Your task to perform on an android device: Open calendar and show me the third week of next month Image 0: 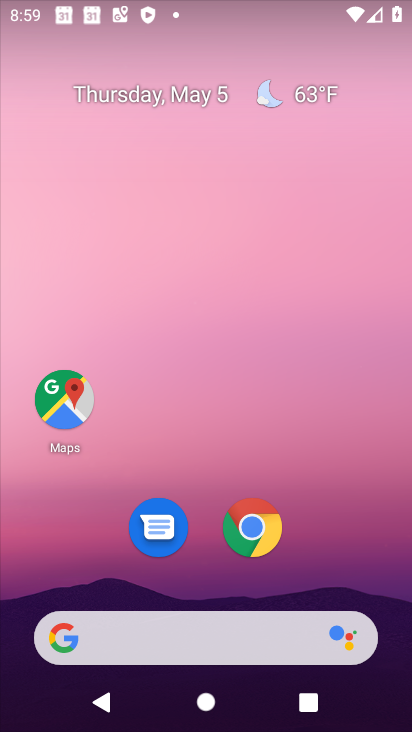
Step 0: drag from (252, 706) to (285, 85)
Your task to perform on an android device: Open calendar and show me the third week of next month Image 1: 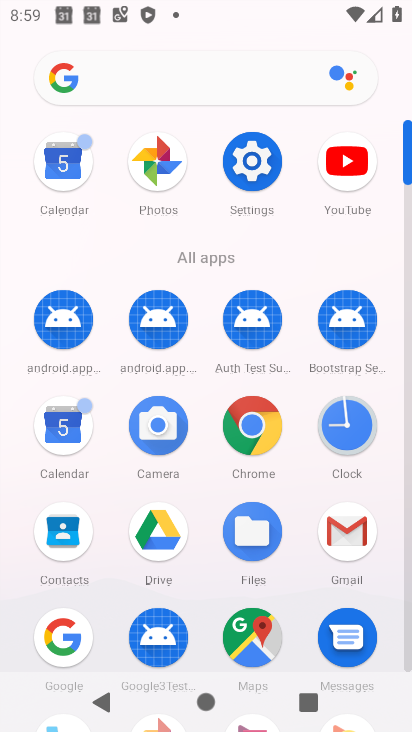
Step 1: click (60, 422)
Your task to perform on an android device: Open calendar and show me the third week of next month Image 2: 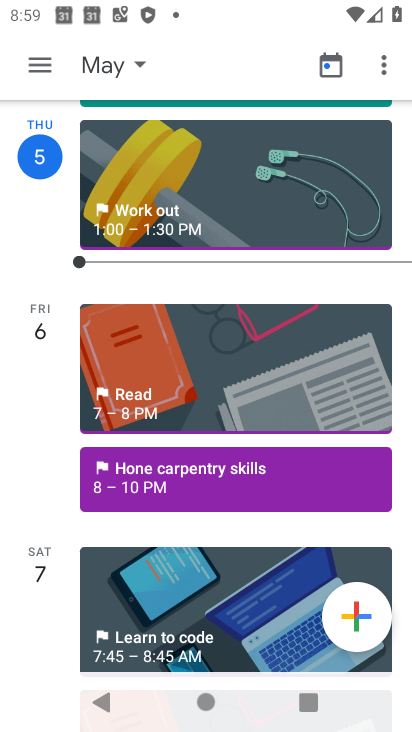
Step 2: click (102, 72)
Your task to perform on an android device: Open calendar and show me the third week of next month Image 3: 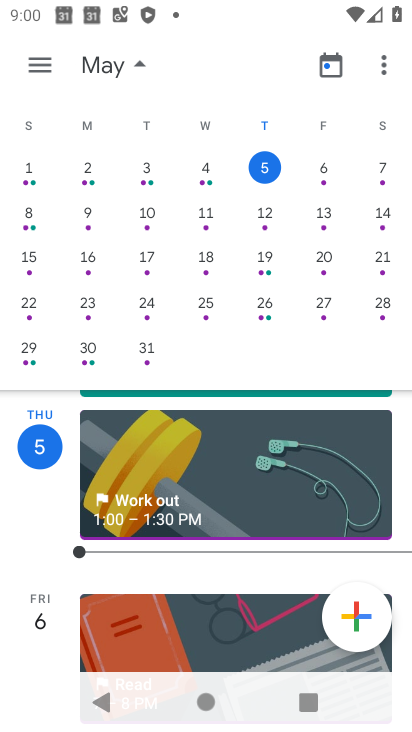
Step 3: drag from (359, 266) to (4, 376)
Your task to perform on an android device: Open calendar and show me the third week of next month Image 4: 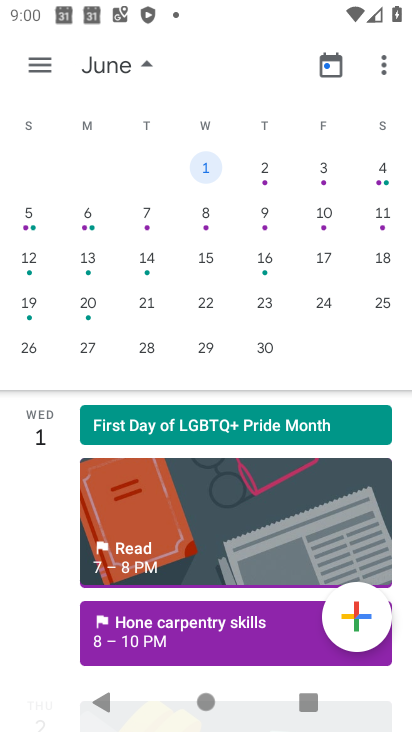
Step 4: click (31, 260)
Your task to perform on an android device: Open calendar and show me the third week of next month Image 5: 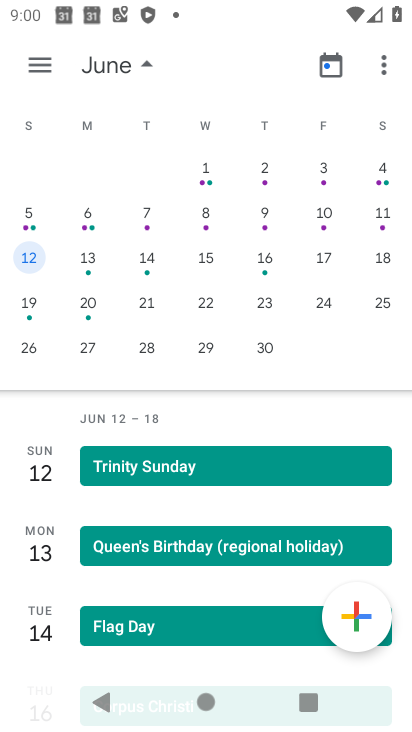
Step 5: task complete